Your task to perform on an android device: toggle notifications settings in the gmail app Image 0: 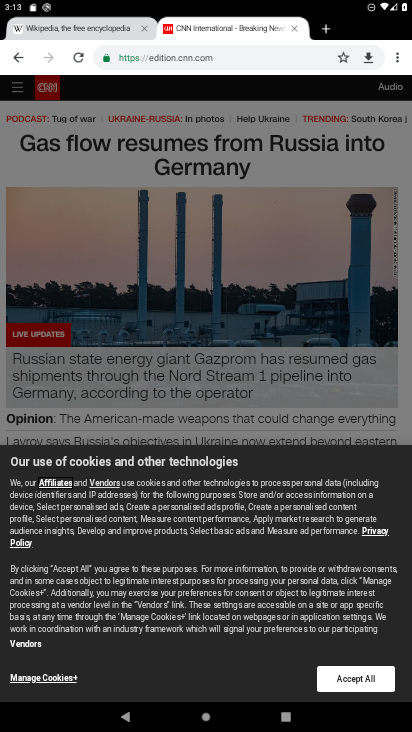
Step 0: press home button
Your task to perform on an android device: toggle notifications settings in the gmail app Image 1: 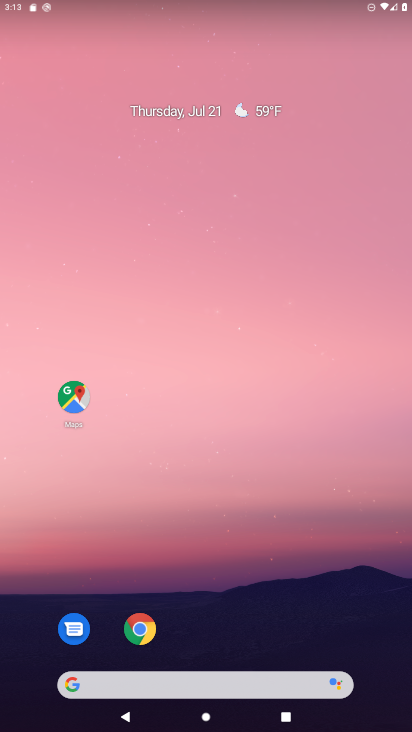
Step 1: drag from (236, 695) to (222, 9)
Your task to perform on an android device: toggle notifications settings in the gmail app Image 2: 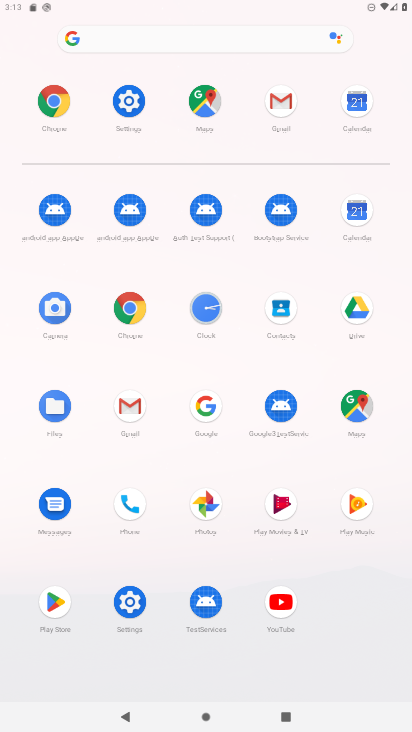
Step 2: click (281, 100)
Your task to perform on an android device: toggle notifications settings in the gmail app Image 3: 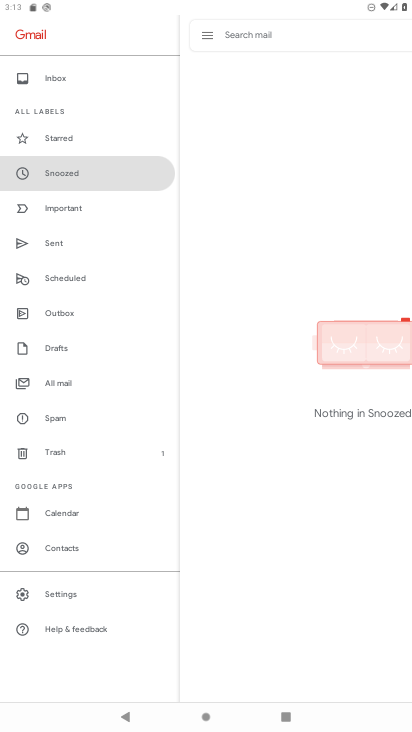
Step 3: click (60, 590)
Your task to perform on an android device: toggle notifications settings in the gmail app Image 4: 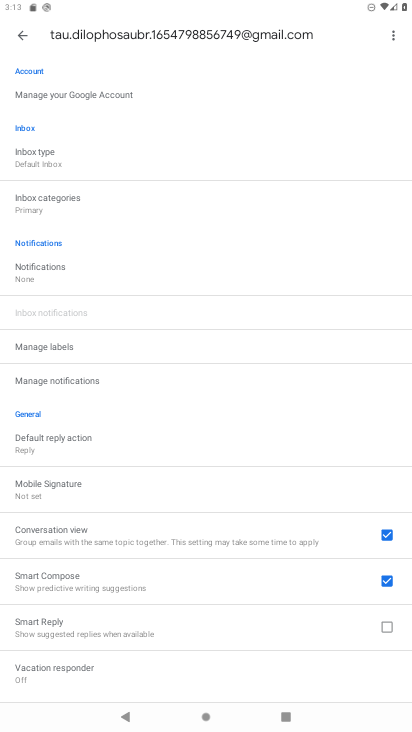
Step 4: click (30, 272)
Your task to perform on an android device: toggle notifications settings in the gmail app Image 5: 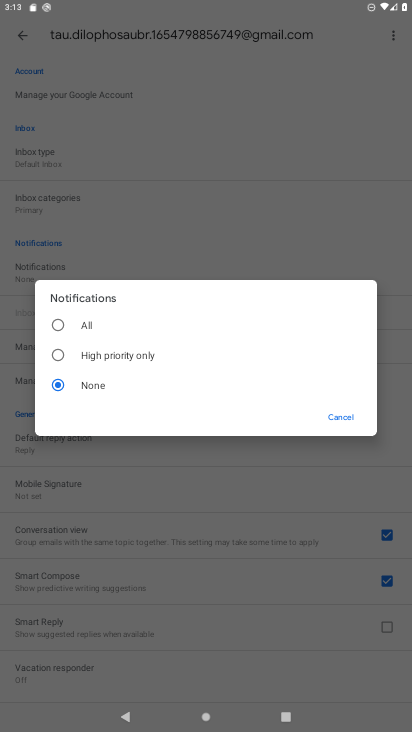
Step 5: click (56, 322)
Your task to perform on an android device: toggle notifications settings in the gmail app Image 6: 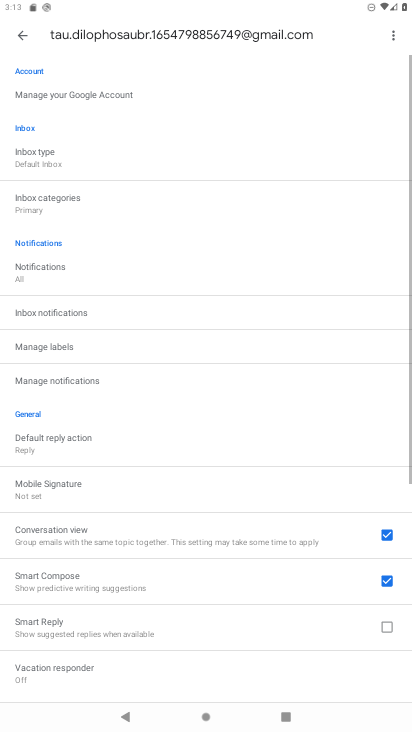
Step 6: task complete